Your task to perform on an android device: move an email to a new category in the gmail app Image 0: 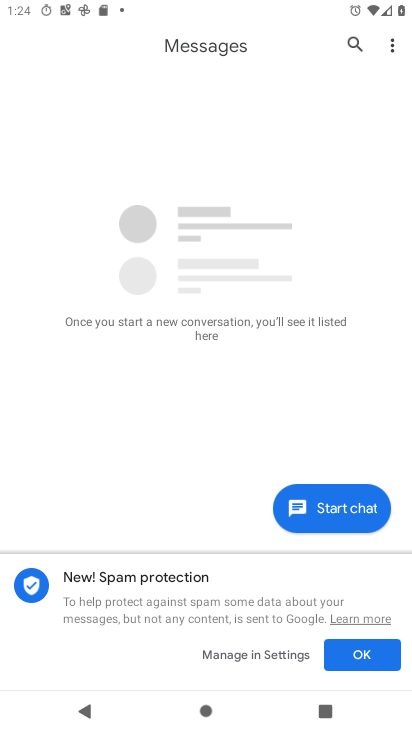
Step 0: press home button
Your task to perform on an android device: move an email to a new category in the gmail app Image 1: 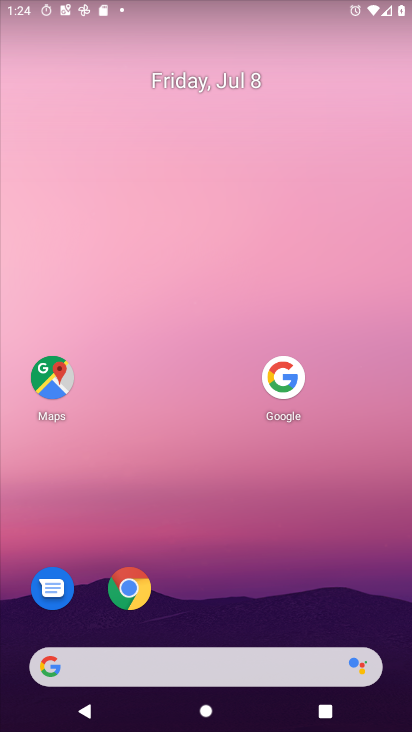
Step 1: drag from (147, 667) to (327, 56)
Your task to perform on an android device: move an email to a new category in the gmail app Image 2: 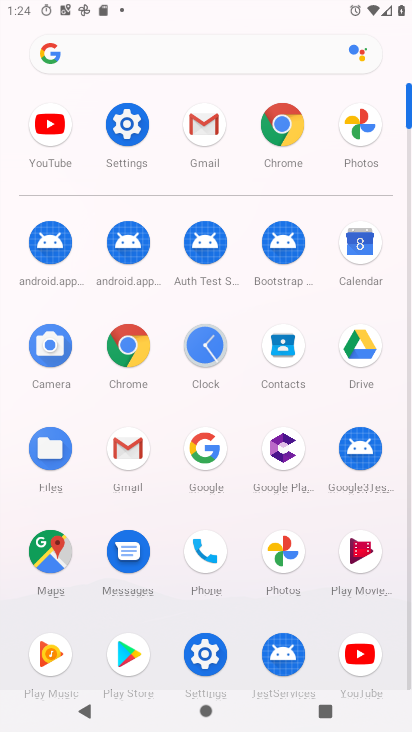
Step 2: click (199, 127)
Your task to perform on an android device: move an email to a new category in the gmail app Image 3: 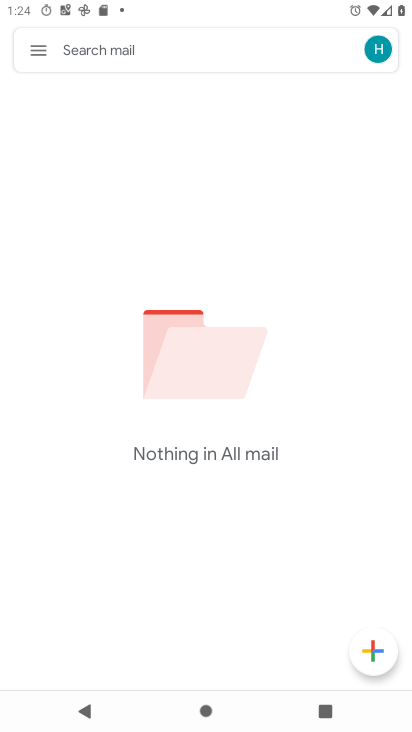
Step 3: task complete